Your task to perform on an android device: Open Android settings Image 0: 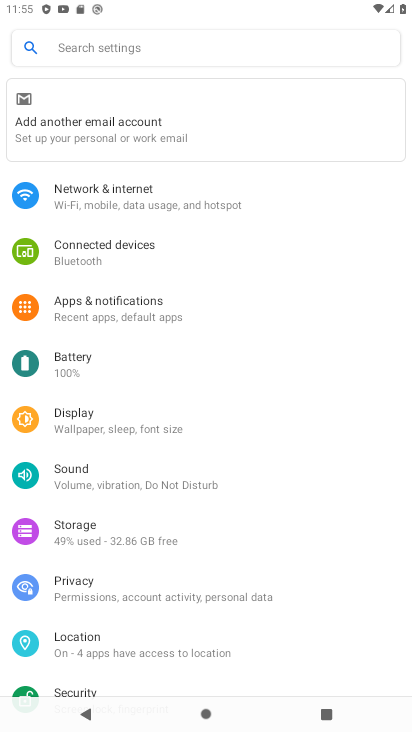
Step 0: press home button
Your task to perform on an android device: Open Android settings Image 1: 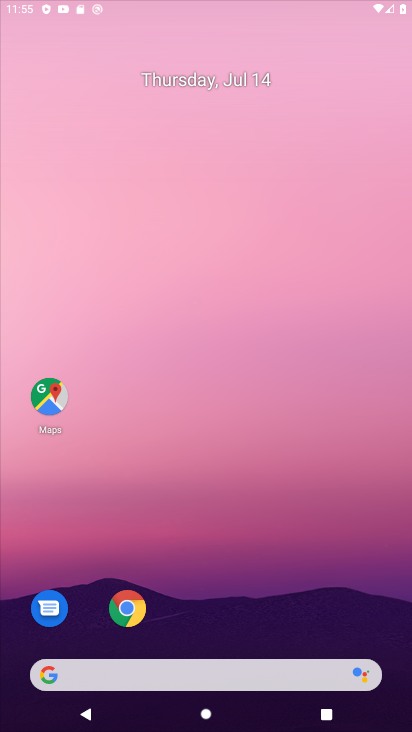
Step 1: drag from (223, 637) to (291, 79)
Your task to perform on an android device: Open Android settings Image 2: 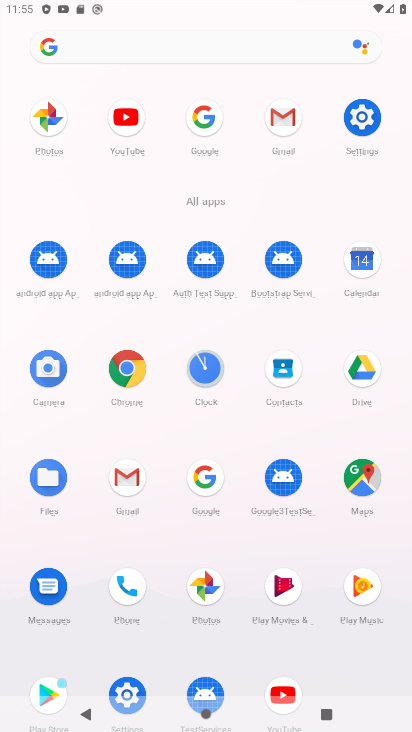
Step 2: click (361, 116)
Your task to perform on an android device: Open Android settings Image 3: 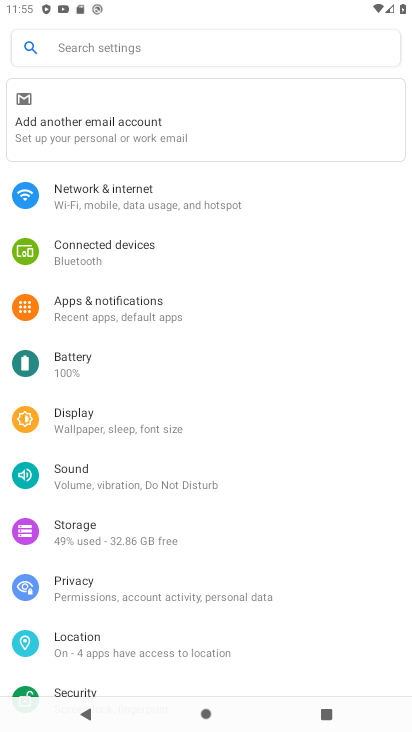
Step 3: task complete